Your task to perform on an android device: Show me popular videos on Youtube Image 0: 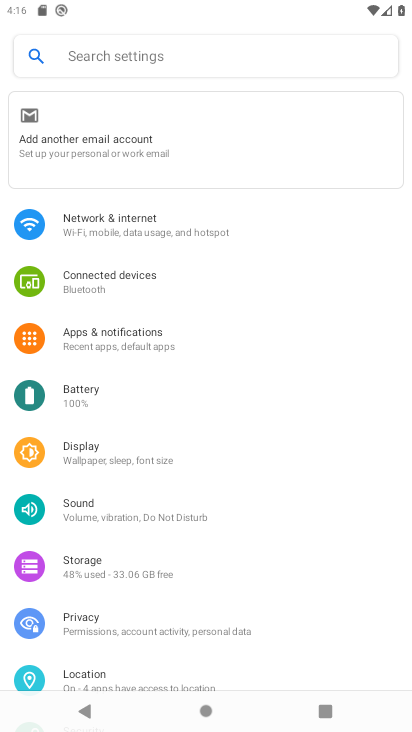
Step 0: press home button
Your task to perform on an android device: Show me popular videos on Youtube Image 1: 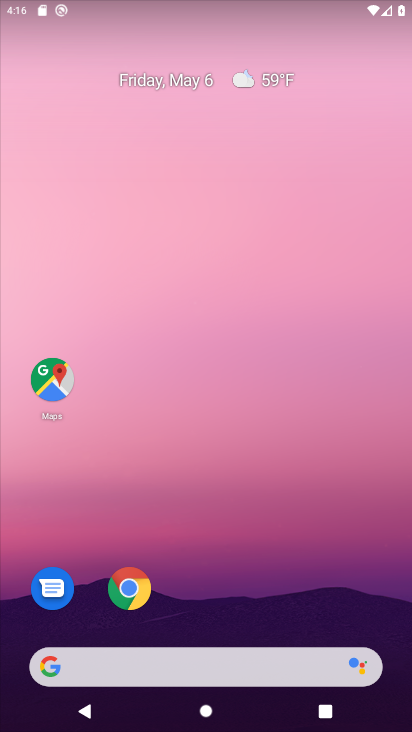
Step 1: drag from (209, 728) to (187, 196)
Your task to perform on an android device: Show me popular videos on Youtube Image 2: 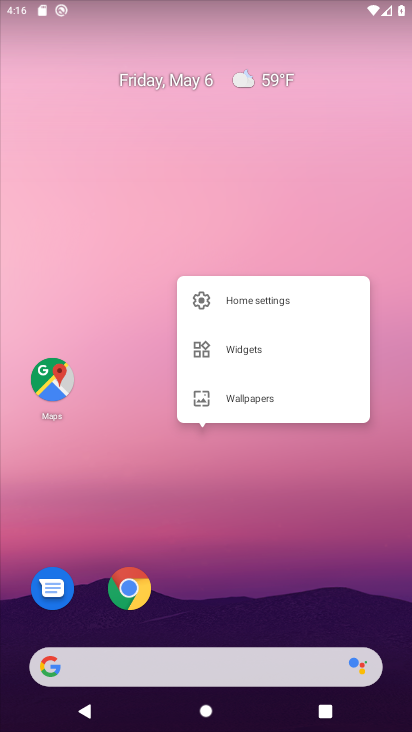
Step 2: click (216, 206)
Your task to perform on an android device: Show me popular videos on Youtube Image 3: 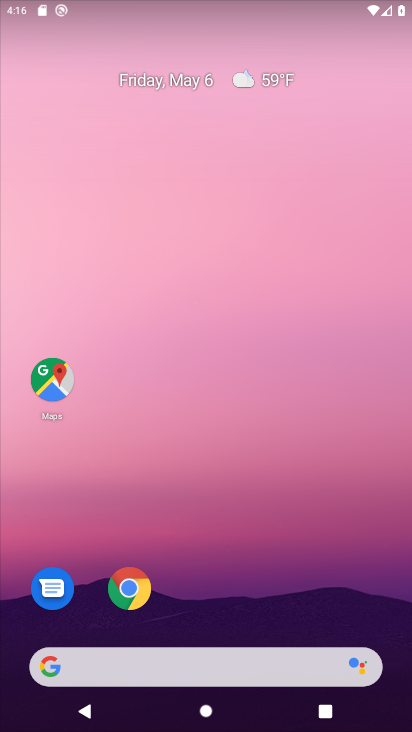
Step 3: click (230, 575)
Your task to perform on an android device: Show me popular videos on Youtube Image 4: 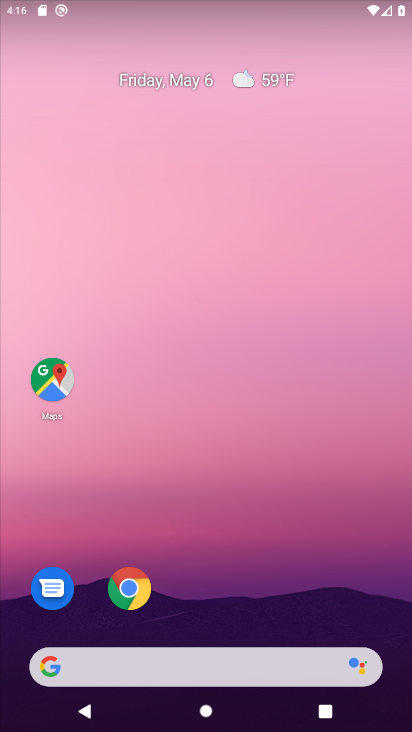
Step 4: drag from (228, 731) to (222, 227)
Your task to perform on an android device: Show me popular videos on Youtube Image 5: 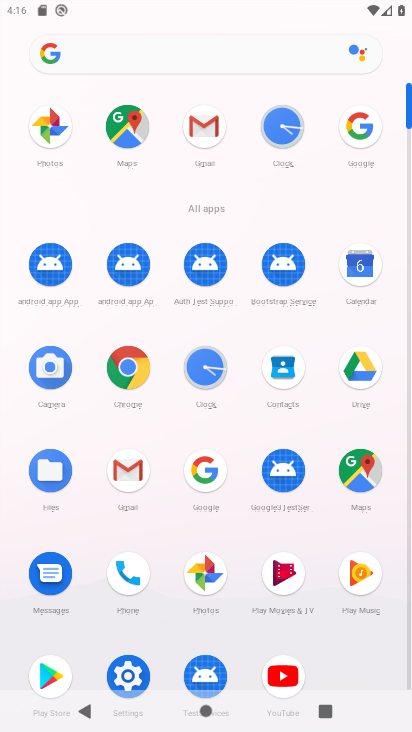
Step 5: click (284, 673)
Your task to perform on an android device: Show me popular videos on Youtube Image 6: 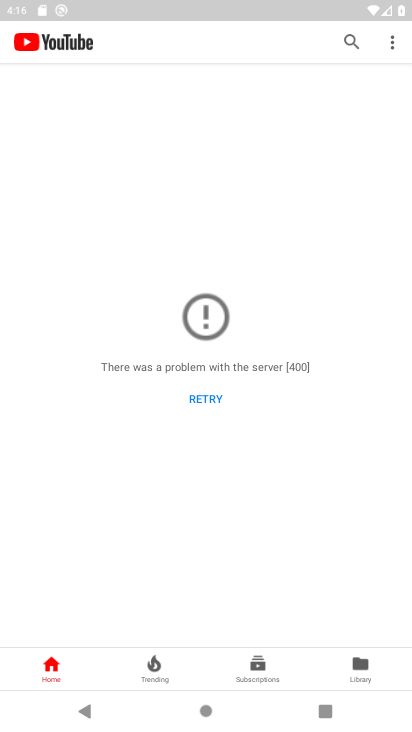
Step 6: task complete